Your task to perform on an android device: Go to accessibility settings Image 0: 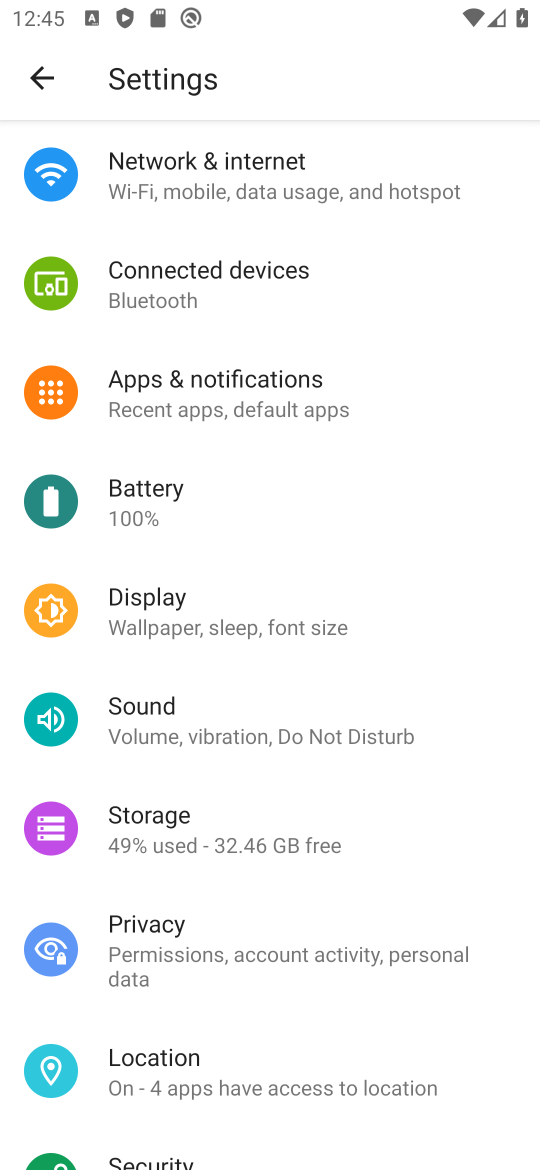
Step 0: drag from (334, 922) to (358, 258)
Your task to perform on an android device: Go to accessibility settings Image 1: 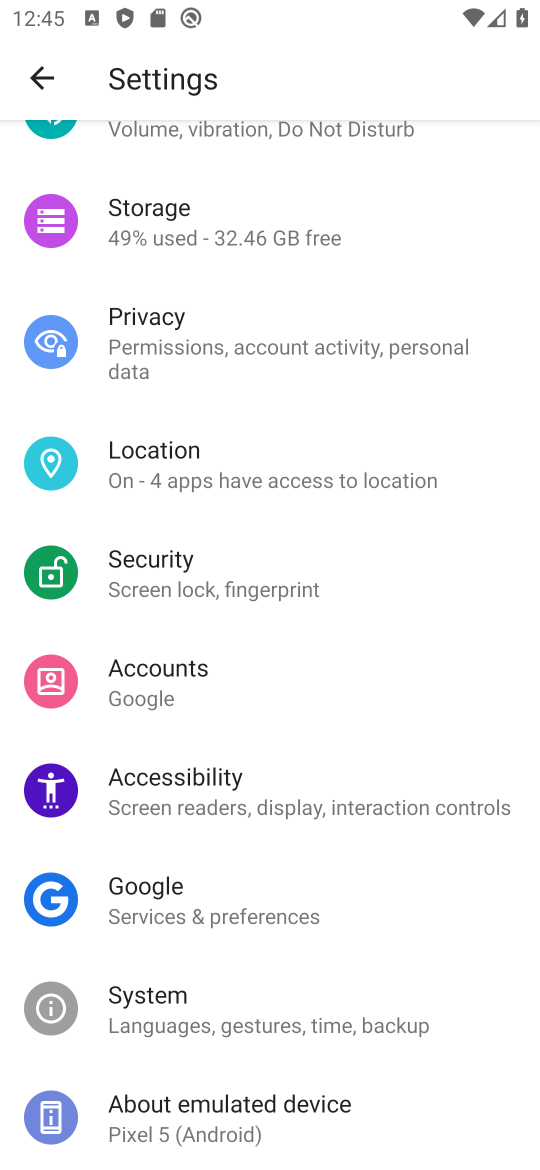
Step 1: click (221, 794)
Your task to perform on an android device: Go to accessibility settings Image 2: 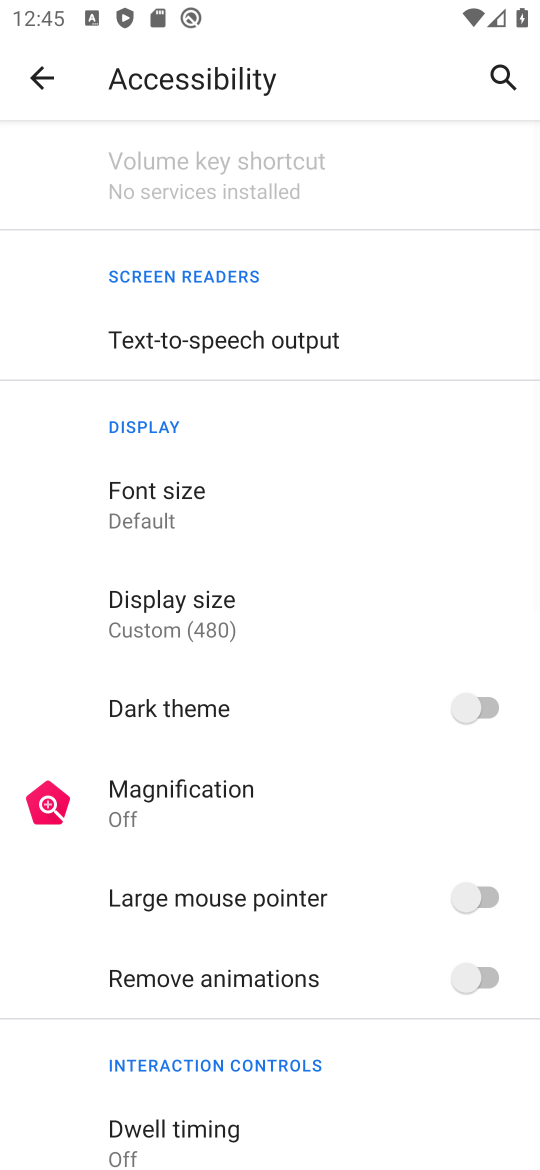
Step 2: task complete